Your task to perform on an android device: turn on notifications settings in the gmail app Image 0: 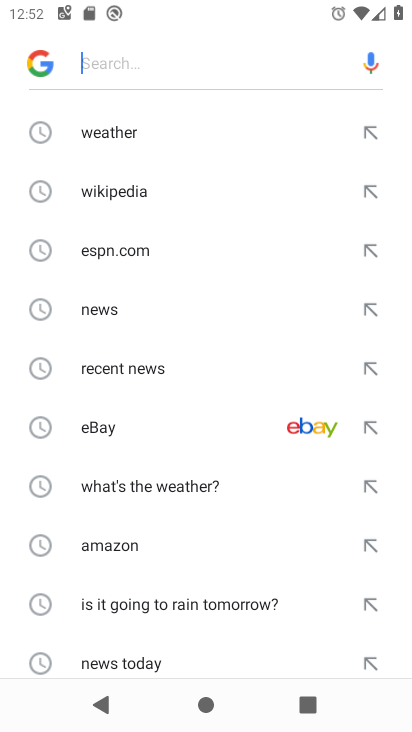
Step 0: press home button
Your task to perform on an android device: turn on notifications settings in the gmail app Image 1: 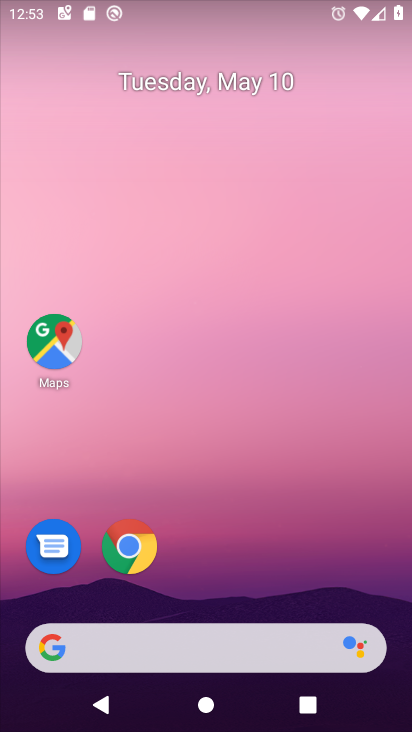
Step 1: drag from (211, 586) to (208, 170)
Your task to perform on an android device: turn on notifications settings in the gmail app Image 2: 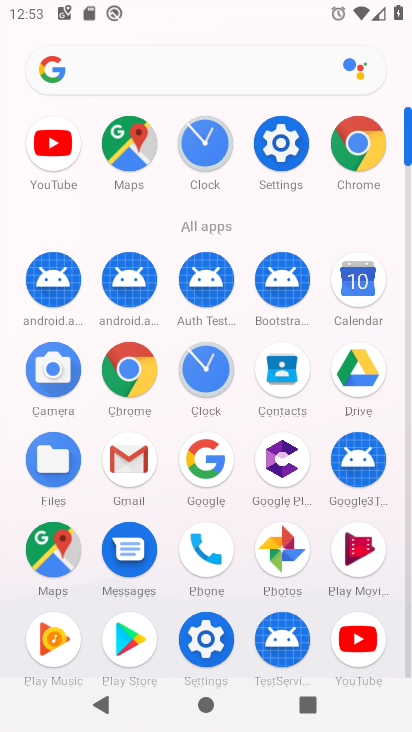
Step 2: click (134, 441)
Your task to perform on an android device: turn on notifications settings in the gmail app Image 3: 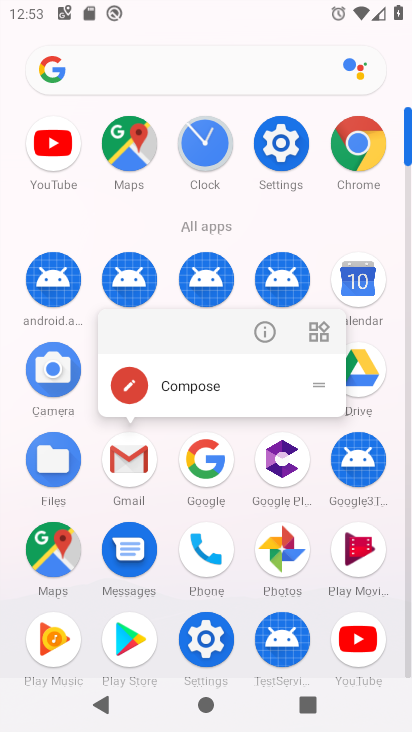
Step 3: click (264, 321)
Your task to perform on an android device: turn on notifications settings in the gmail app Image 4: 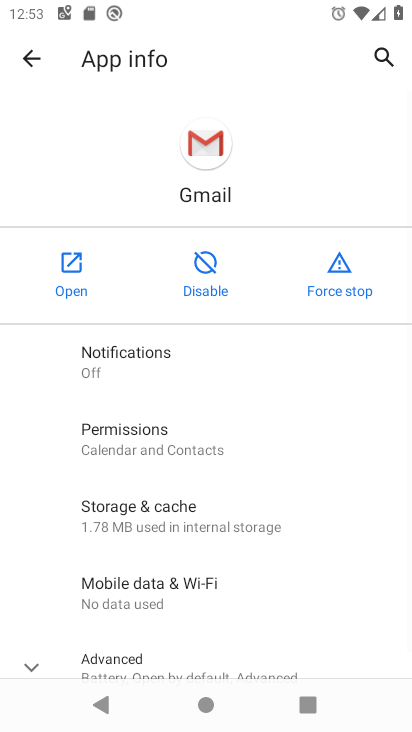
Step 4: click (169, 345)
Your task to perform on an android device: turn on notifications settings in the gmail app Image 5: 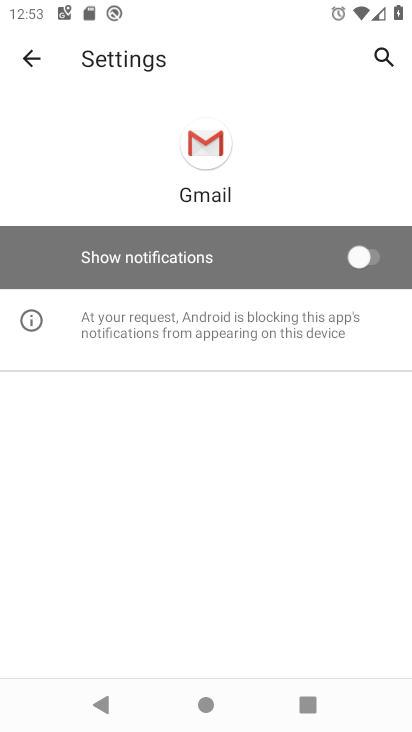
Step 5: click (372, 273)
Your task to perform on an android device: turn on notifications settings in the gmail app Image 6: 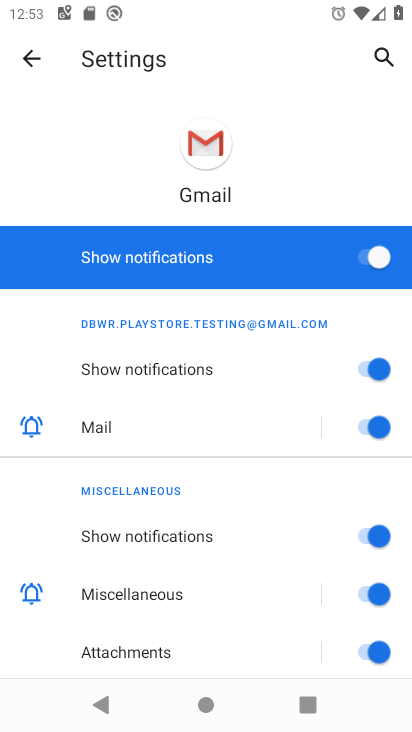
Step 6: task complete